Your task to perform on an android device: turn notification dots on Image 0: 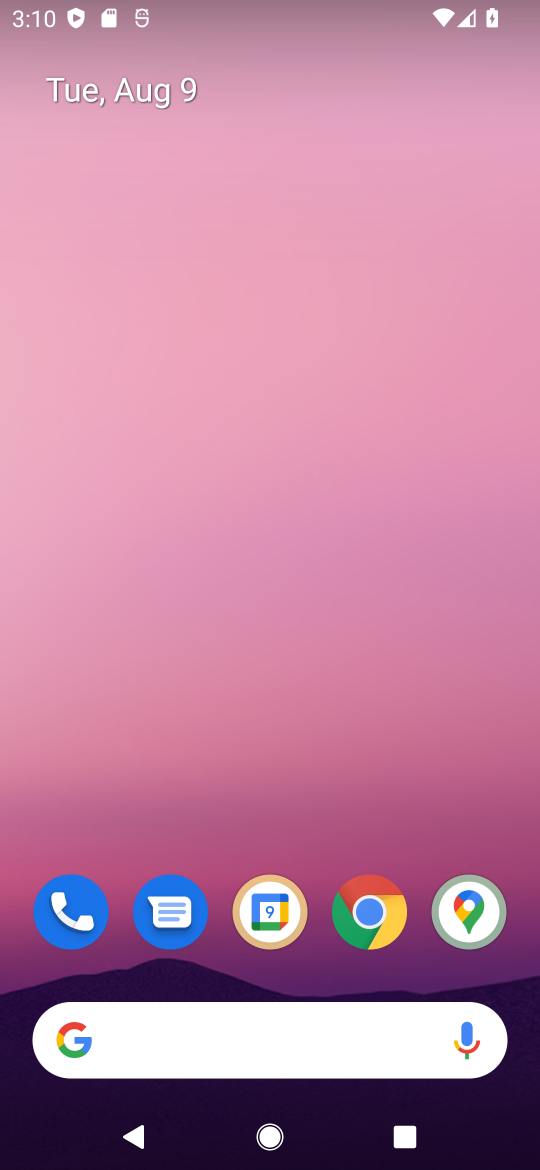
Step 0: drag from (248, 615) to (224, 159)
Your task to perform on an android device: turn notification dots on Image 1: 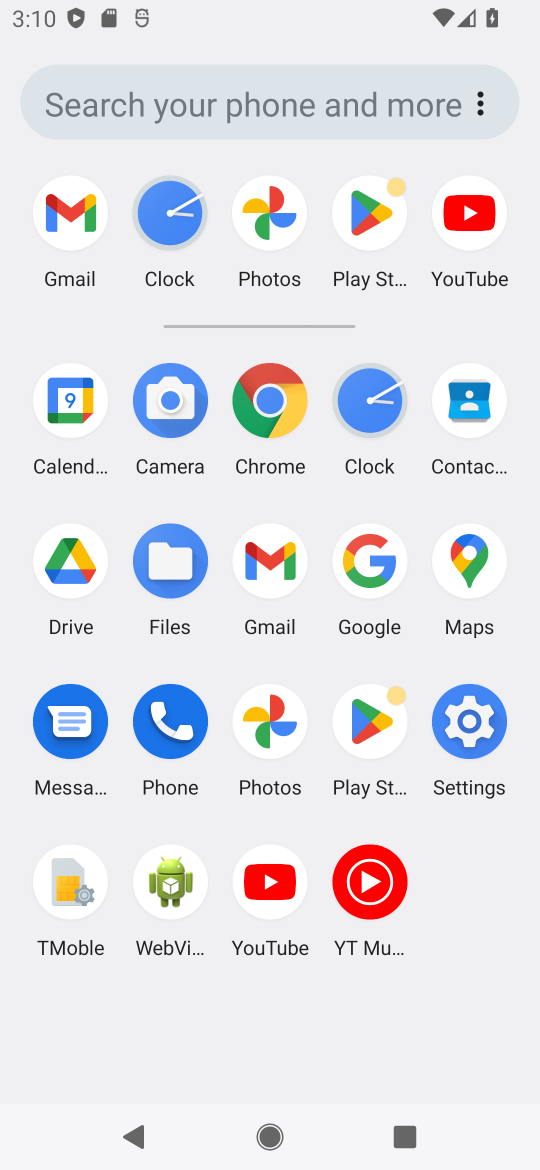
Step 1: click (471, 718)
Your task to perform on an android device: turn notification dots on Image 2: 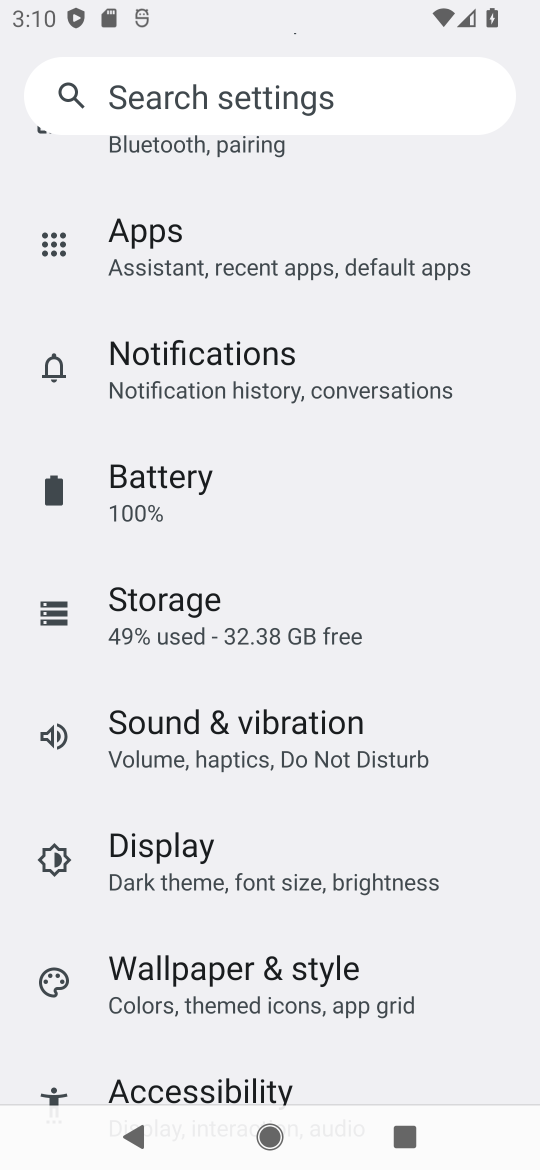
Step 2: click (219, 355)
Your task to perform on an android device: turn notification dots on Image 3: 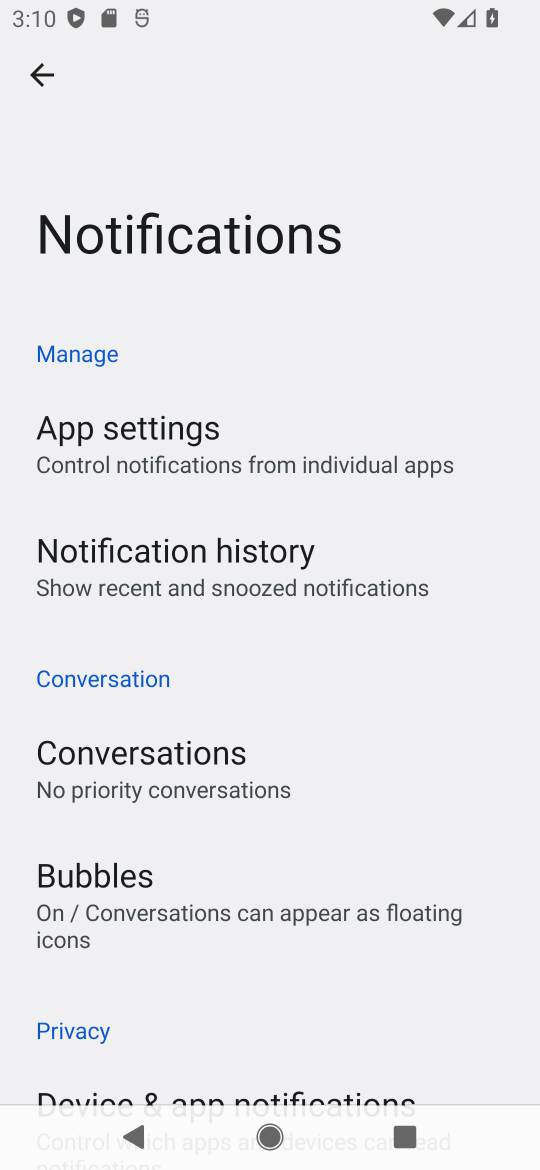
Step 3: drag from (266, 827) to (240, 273)
Your task to perform on an android device: turn notification dots on Image 4: 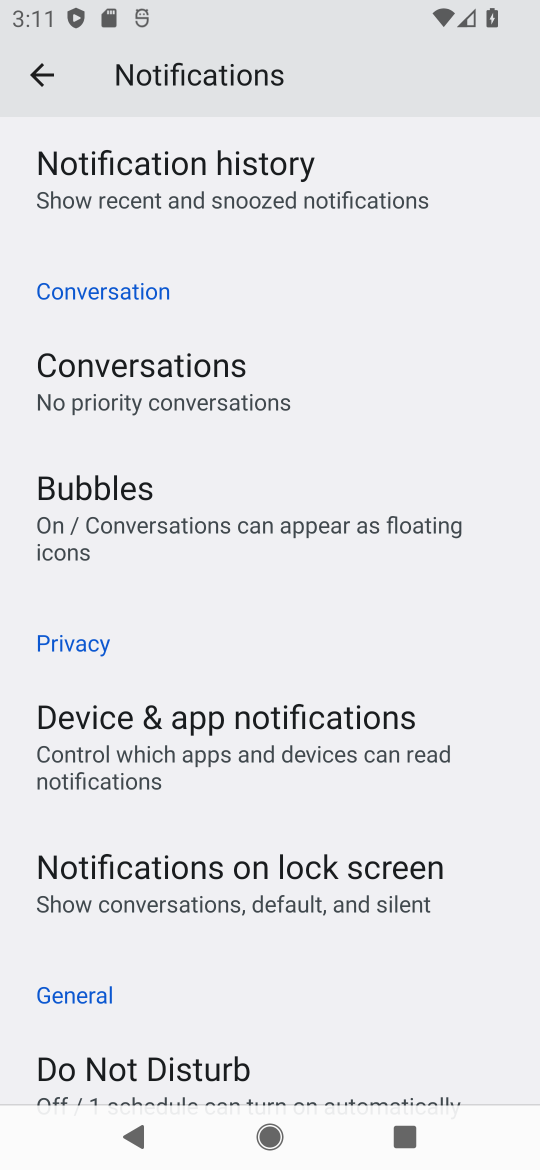
Step 4: drag from (264, 971) to (202, 463)
Your task to perform on an android device: turn notification dots on Image 5: 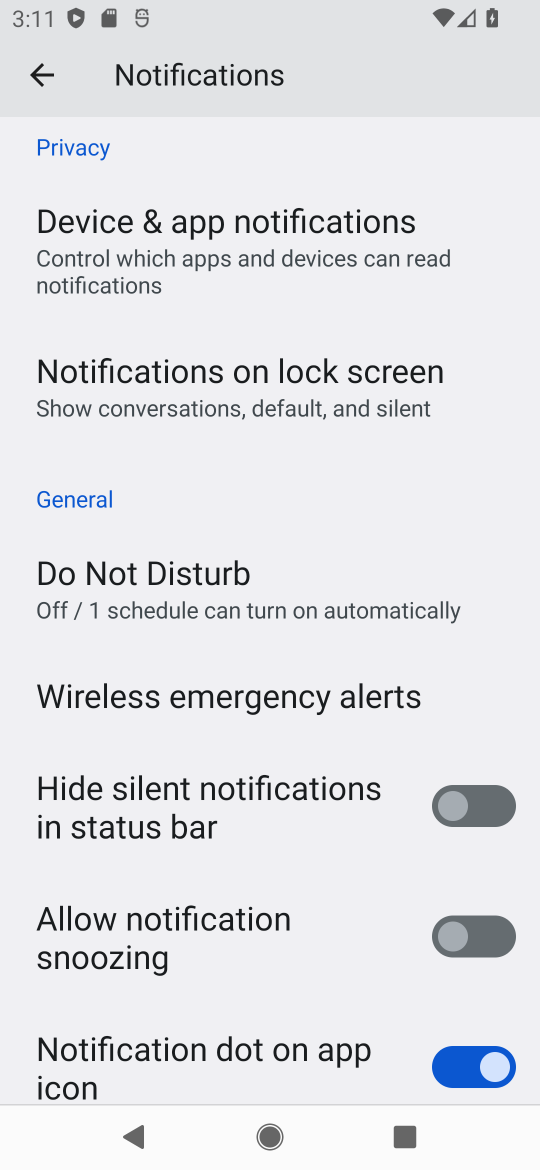
Step 5: click (364, 982)
Your task to perform on an android device: turn notification dots on Image 6: 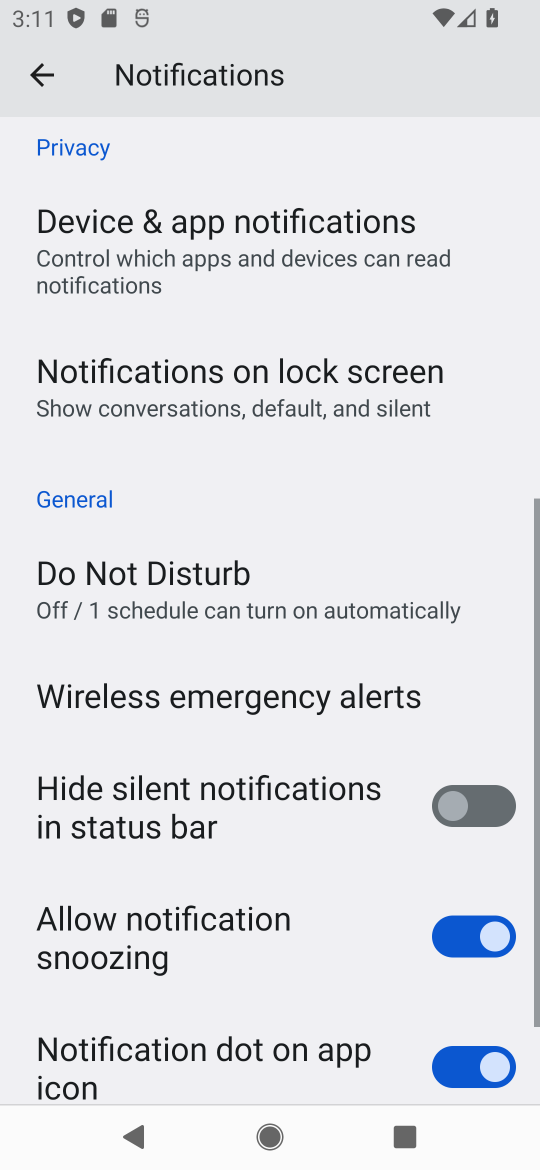
Step 6: task complete